Your task to perform on an android device: toggle airplane mode Image 0: 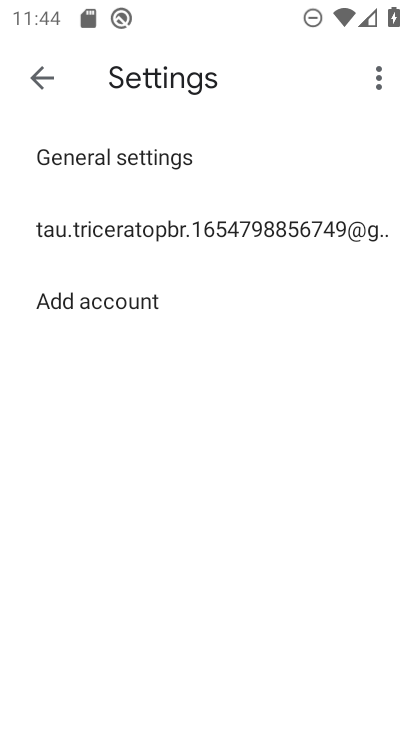
Step 0: press home button
Your task to perform on an android device: toggle airplane mode Image 1: 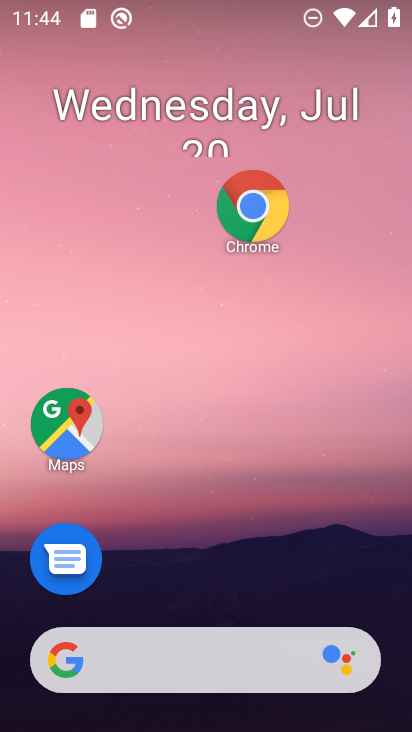
Step 1: drag from (279, 500) to (316, 86)
Your task to perform on an android device: toggle airplane mode Image 2: 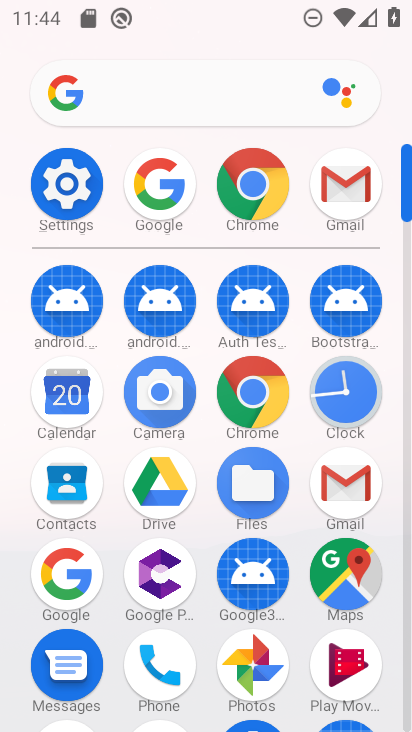
Step 2: click (57, 199)
Your task to perform on an android device: toggle airplane mode Image 3: 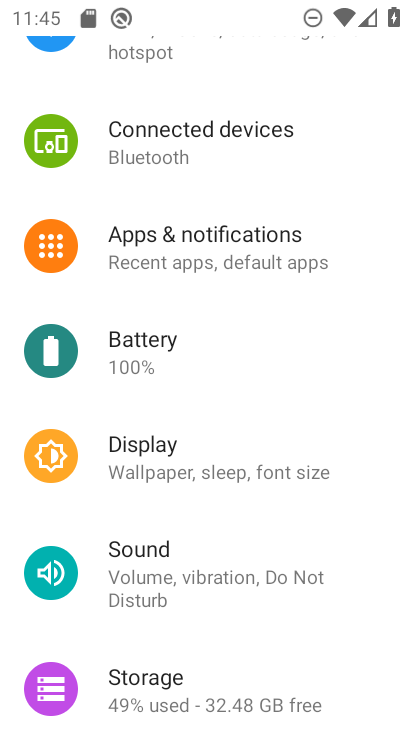
Step 3: drag from (152, 202) to (230, 720)
Your task to perform on an android device: toggle airplane mode Image 4: 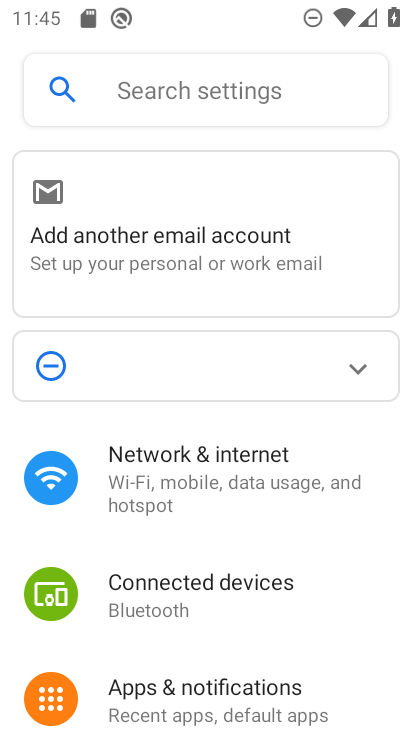
Step 4: click (235, 487)
Your task to perform on an android device: toggle airplane mode Image 5: 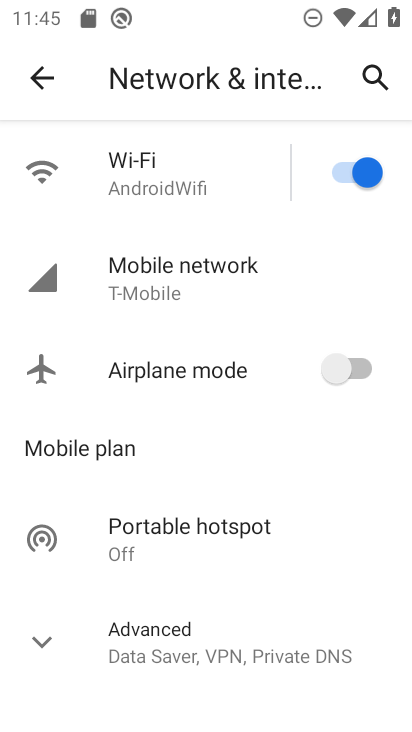
Step 5: click (319, 367)
Your task to perform on an android device: toggle airplane mode Image 6: 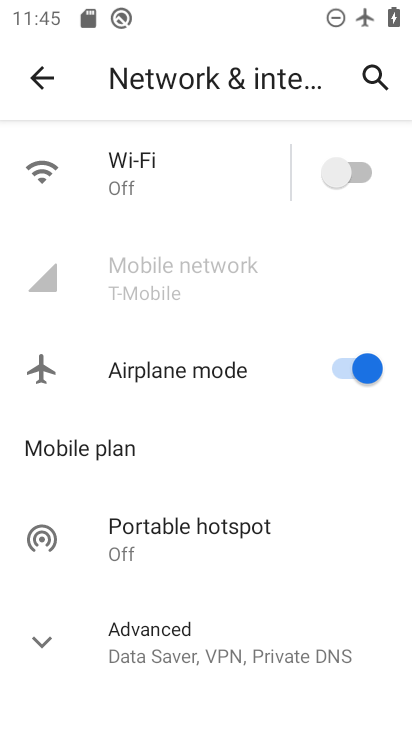
Step 6: task complete